Your task to perform on an android device: Go to settings Image 0: 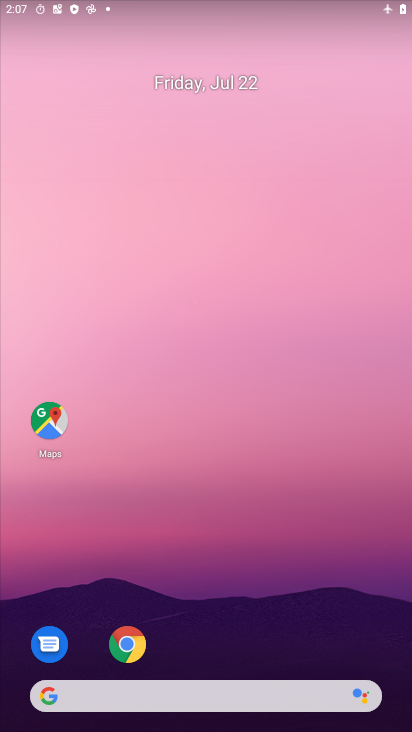
Step 0: drag from (149, 680) to (201, 200)
Your task to perform on an android device: Go to settings Image 1: 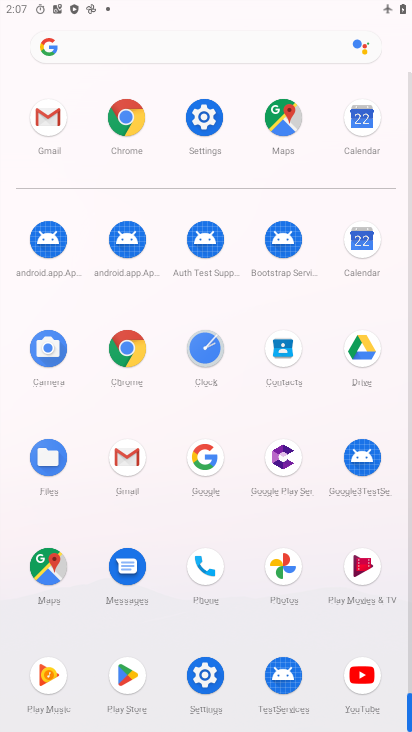
Step 1: click (210, 138)
Your task to perform on an android device: Go to settings Image 2: 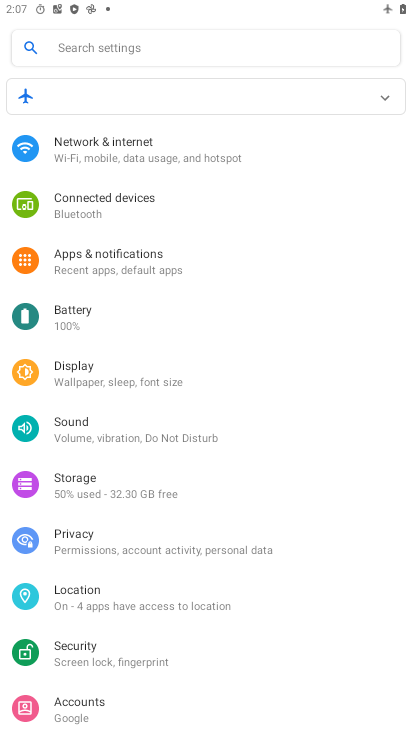
Step 2: task complete